Your task to perform on an android device: Go to internet settings Image 0: 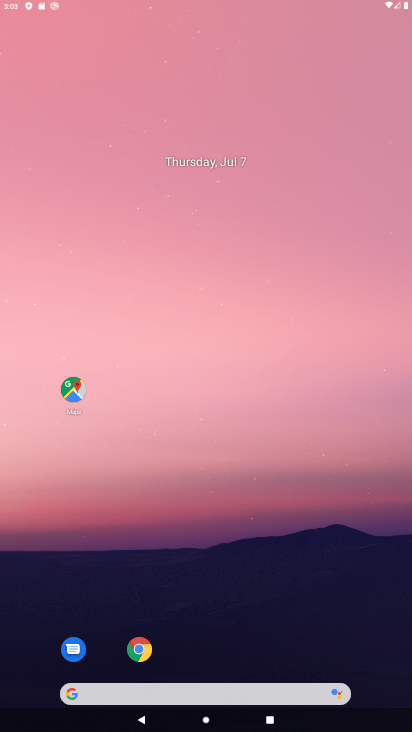
Step 0: click (308, 49)
Your task to perform on an android device: Go to internet settings Image 1: 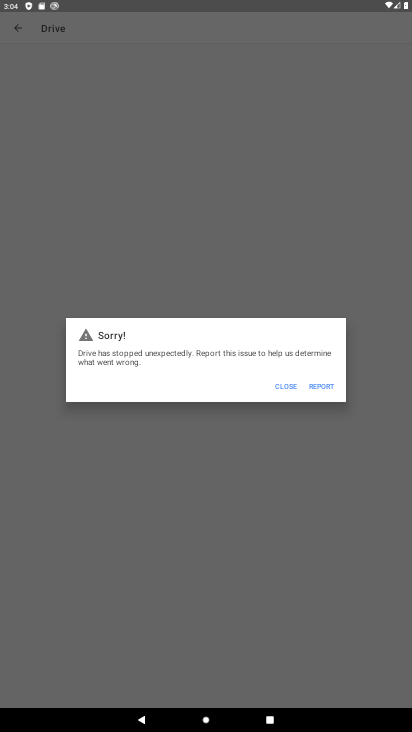
Step 1: press home button
Your task to perform on an android device: Go to internet settings Image 2: 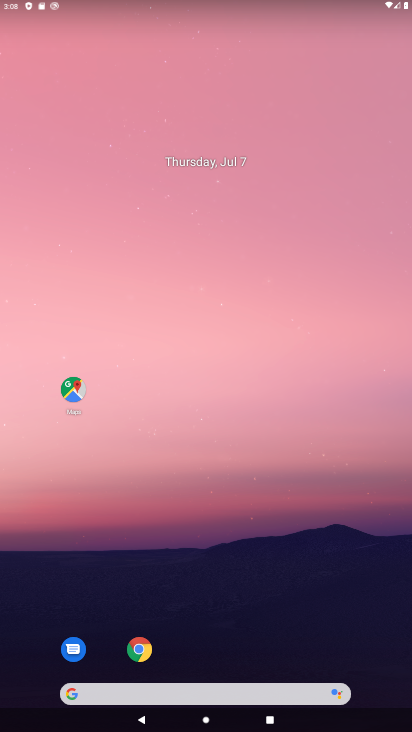
Step 2: drag from (288, 574) to (328, 297)
Your task to perform on an android device: Go to internet settings Image 3: 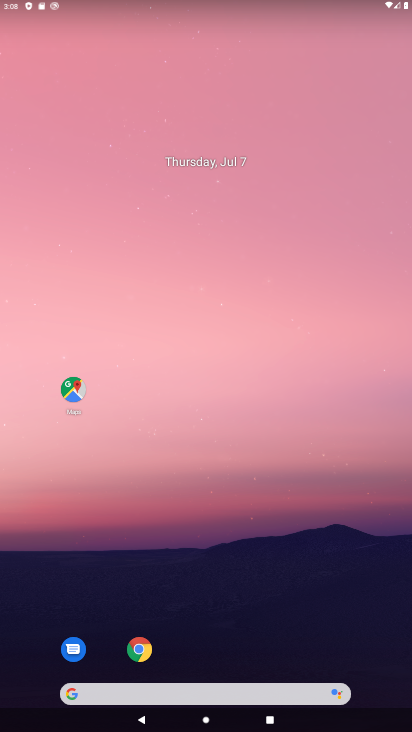
Step 3: drag from (275, 492) to (263, 124)
Your task to perform on an android device: Go to internet settings Image 4: 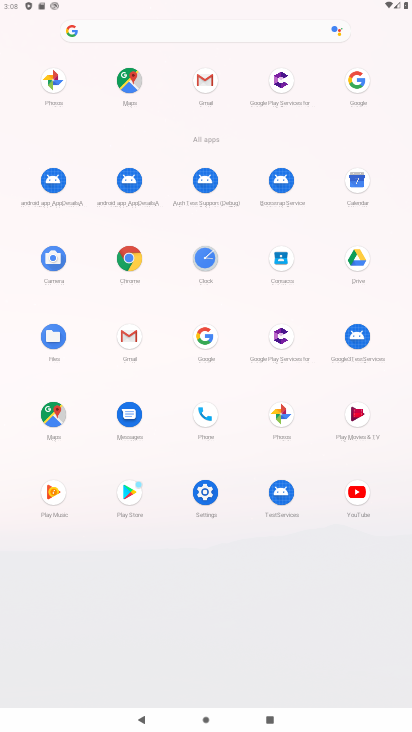
Step 4: click (208, 508)
Your task to perform on an android device: Go to internet settings Image 5: 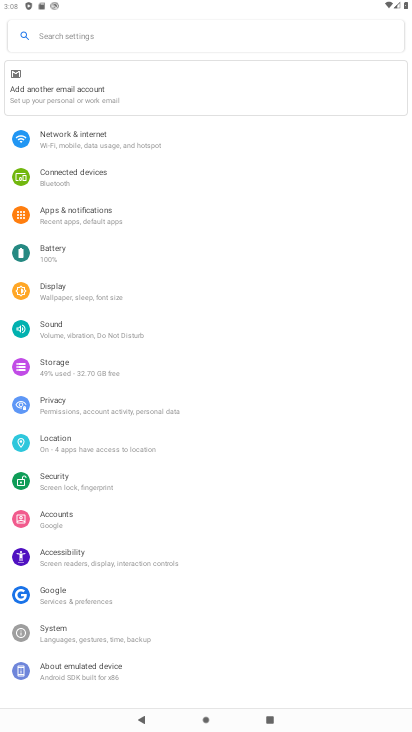
Step 5: click (71, 142)
Your task to perform on an android device: Go to internet settings Image 6: 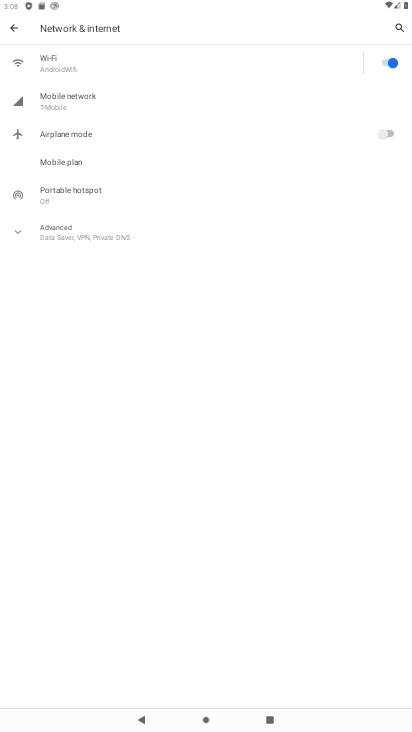
Step 6: click (121, 104)
Your task to perform on an android device: Go to internet settings Image 7: 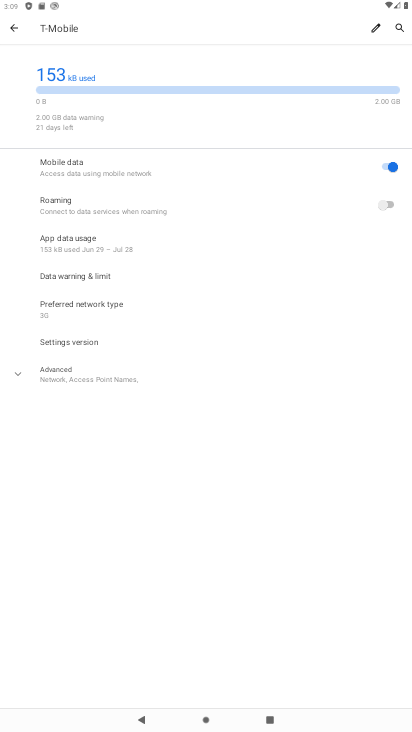
Step 7: task complete